Your task to perform on an android device: turn off priority inbox in the gmail app Image 0: 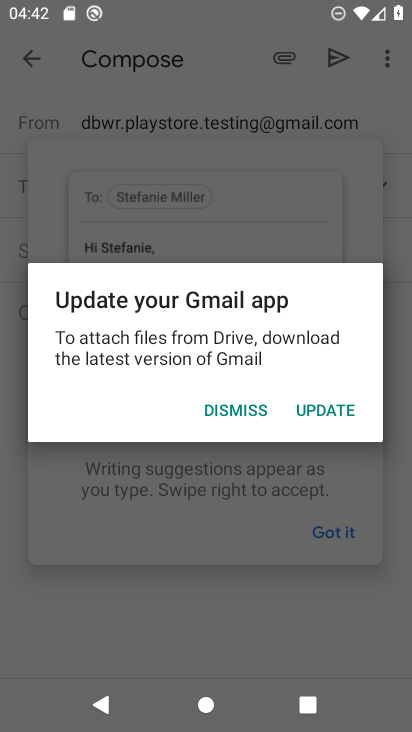
Step 0: press home button
Your task to perform on an android device: turn off priority inbox in the gmail app Image 1: 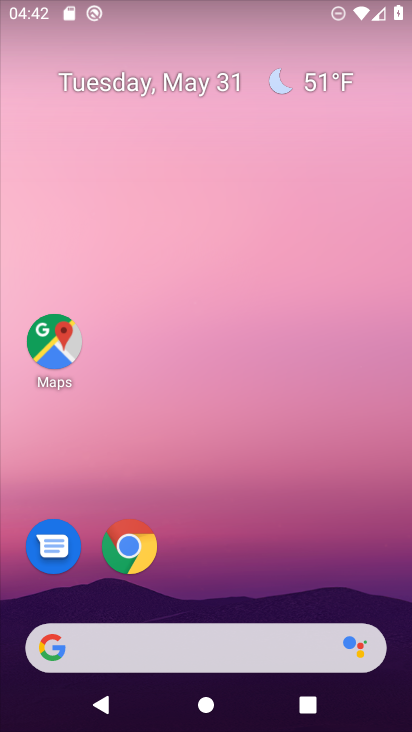
Step 1: drag from (221, 594) to (170, 164)
Your task to perform on an android device: turn off priority inbox in the gmail app Image 2: 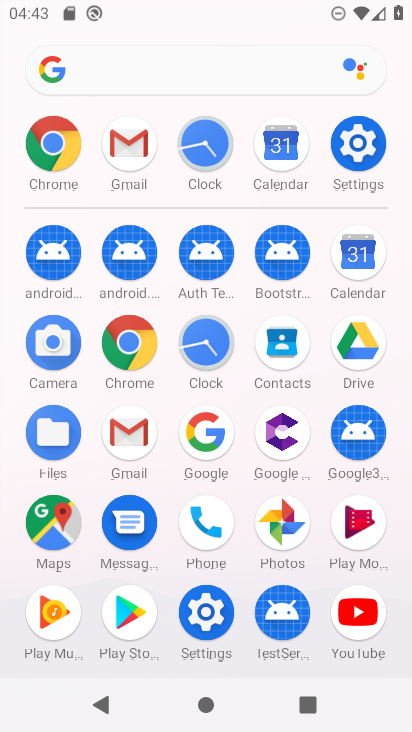
Step 2: click (134, 162)
Your task to perform on an android device: turn off priority inbox in the gmail app Image 3: 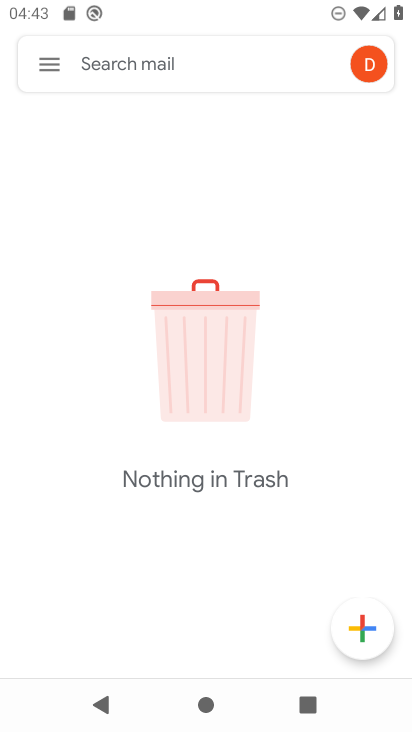
Step 3: click (48, 65)
Your task to perform on an android device: turn off priority inbox in the gmail app Image 4: 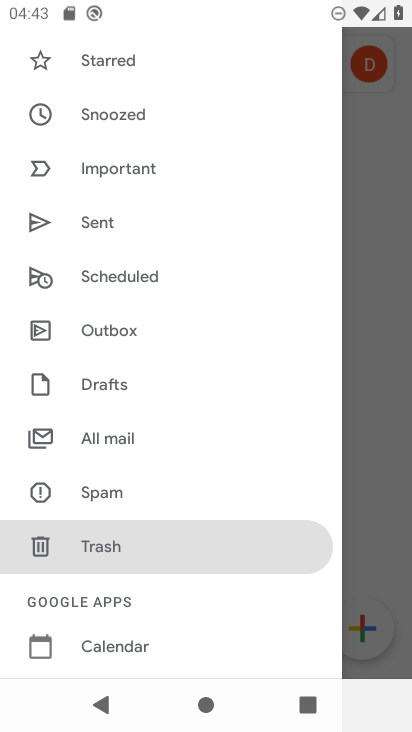
Step 4: drag from (141, 512) to (166, 198)
Your task to perform on an android device: turn off priority inbox in the gmail app Image 5: 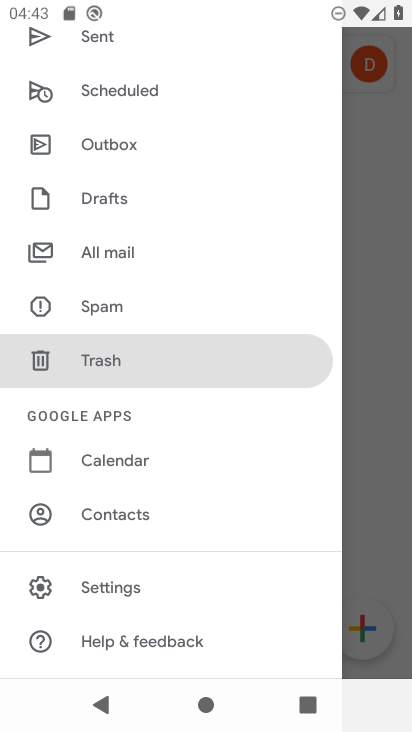
Step 5: click (104, 583)
Your task to perform on an android device: turn off priority inbox in the gmail app Image 6: 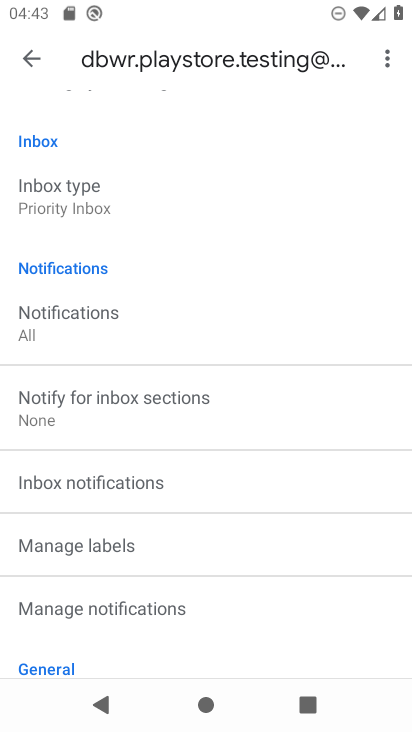
Step 6: click (59, 210)
Your task to perform on an android device: turn off priority inbox in the gmail app Image 7: 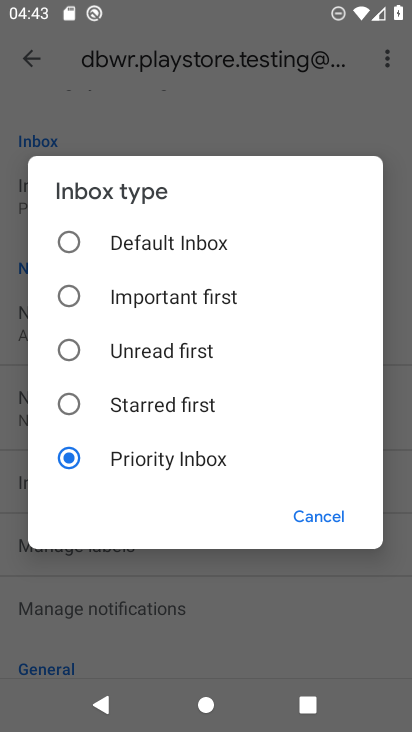
Step 7: click (78, 249)
Your task to perform on an android device: turn off priority inbox in the gmail app Image 8: 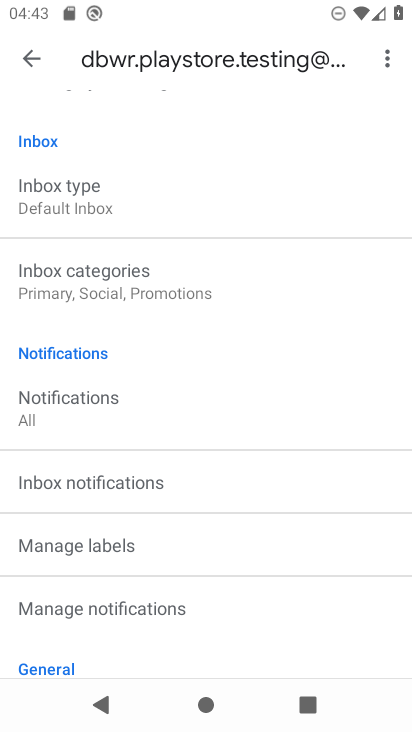
Step 8: task complete